Your task to perform on an android device: Add "apple airpods" to the cart on ebay.com, then select checkout. Image 0: 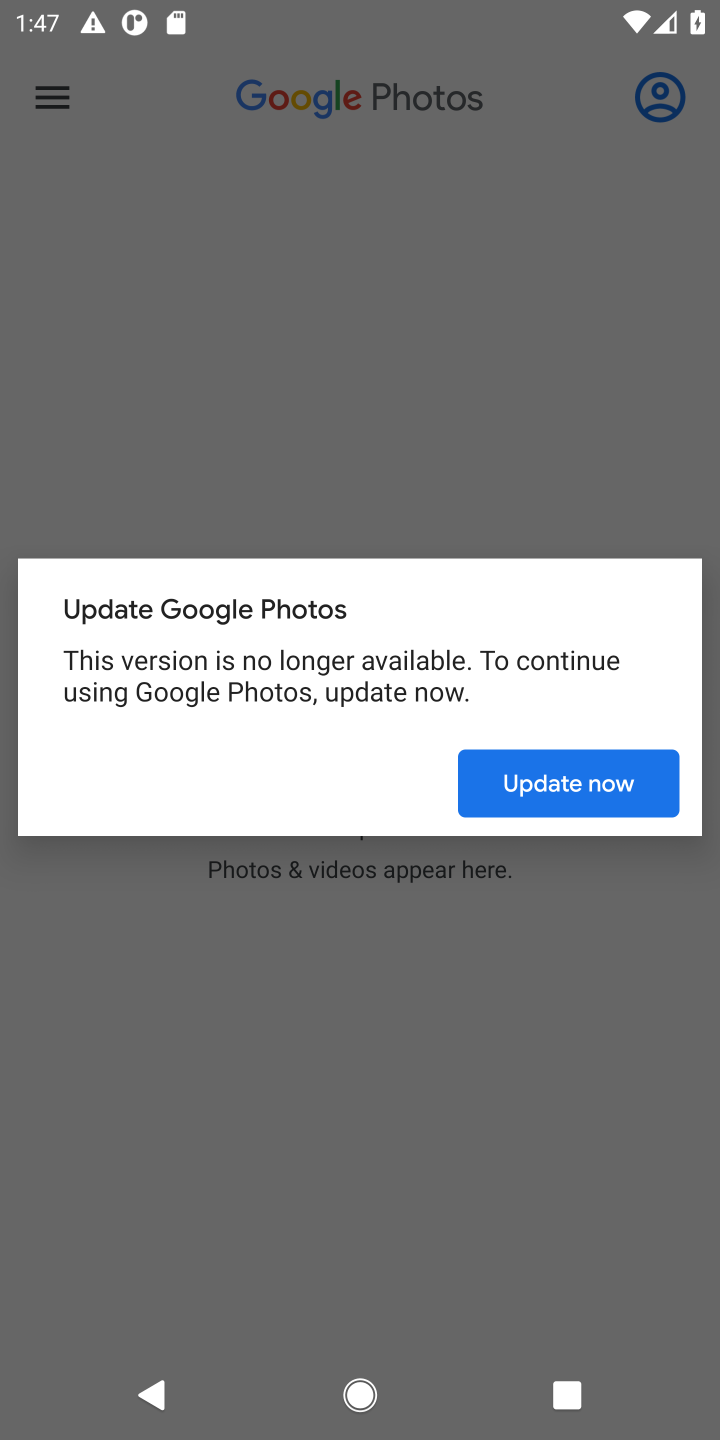
Step 0: press home button
Your task to perform on an android device: Add "apple airpods" to the cart on ebay.com, then select checkout. Image 1: 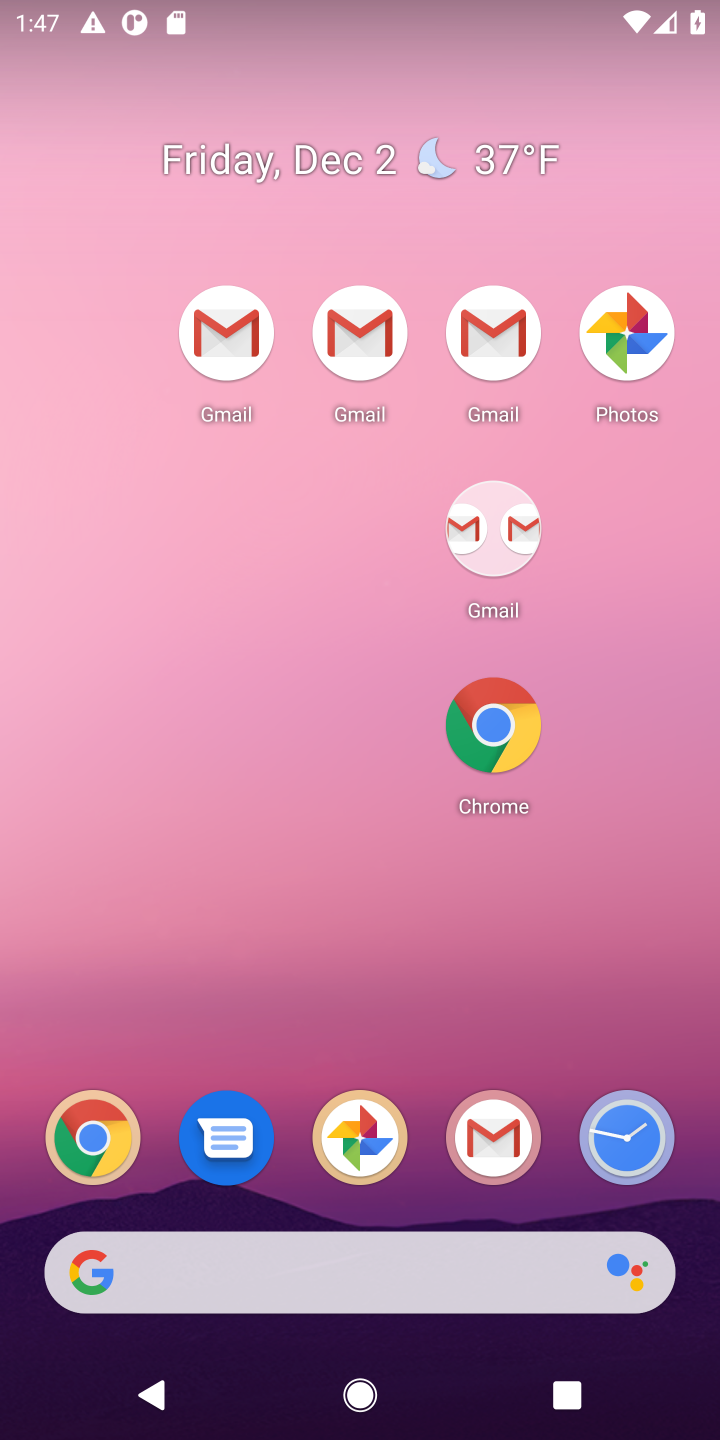
Step 1: drag from (410, 1120) to (364, 69)
Your task to perform on an android device: Add "apple airpods" to the cart on ebay.com, then select checkout. Image 2: 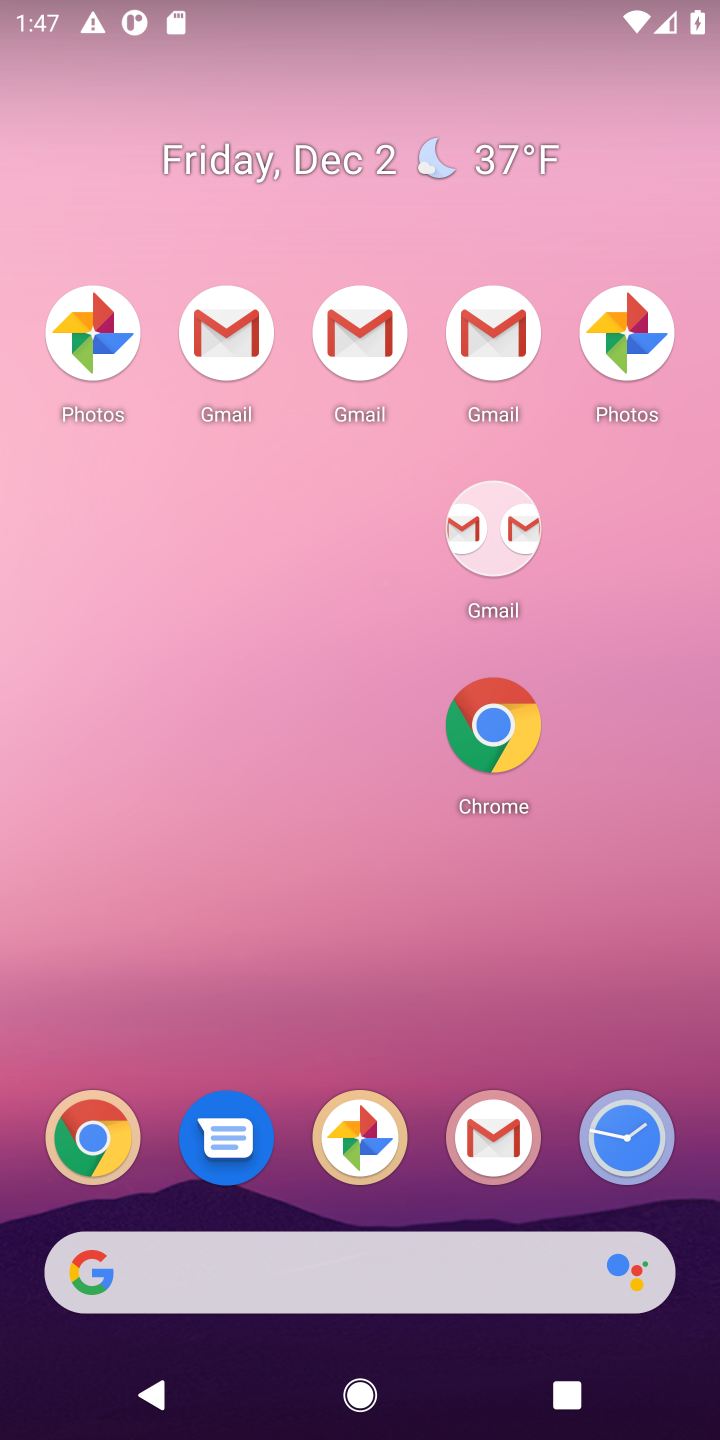
Step 2: drag from (347, 964) to (457, 95)
Your task to perform on an android device: Add "apple airpods" to the cart on ebay.com, then select checkout. Image 3: 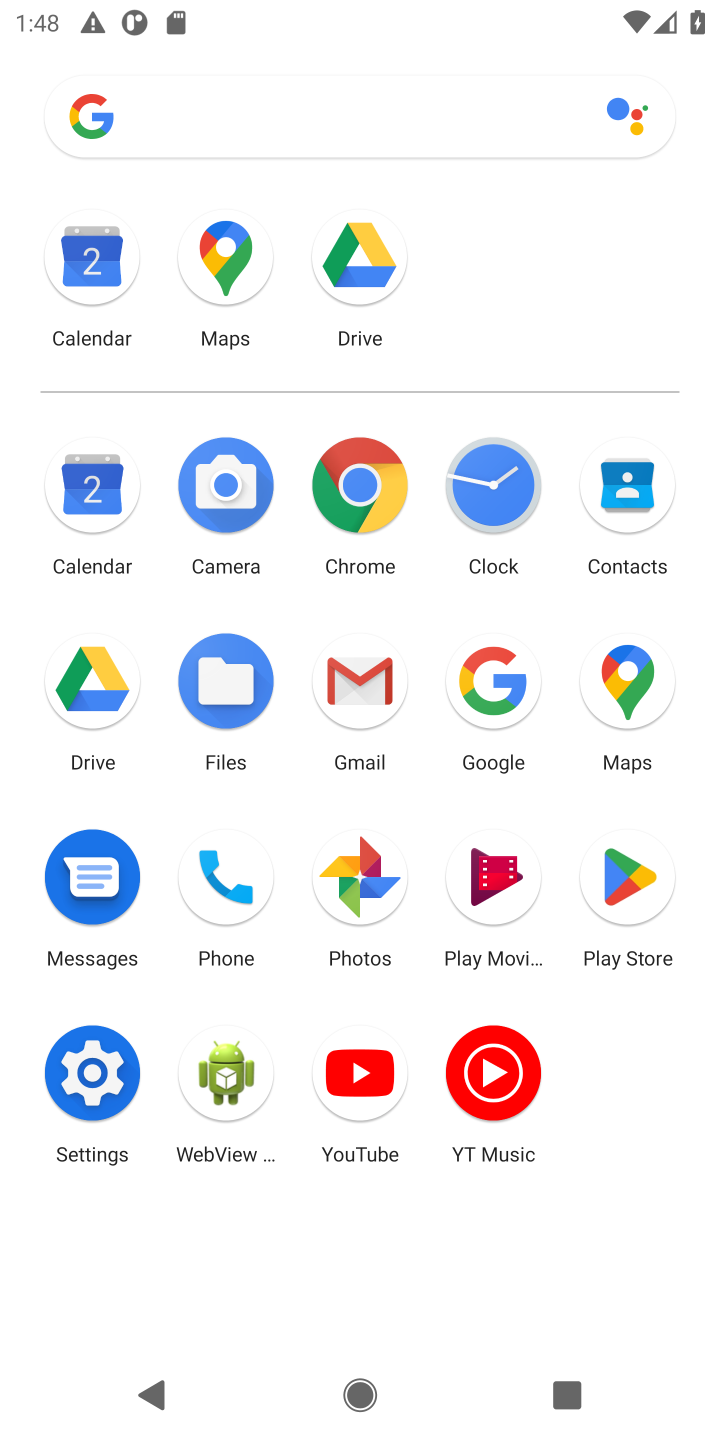
Step 3: click (505, 713)
Your task to perform on an android device: Add "apple airpods" to the cart on ebay.com, then select checkout. Image 4: 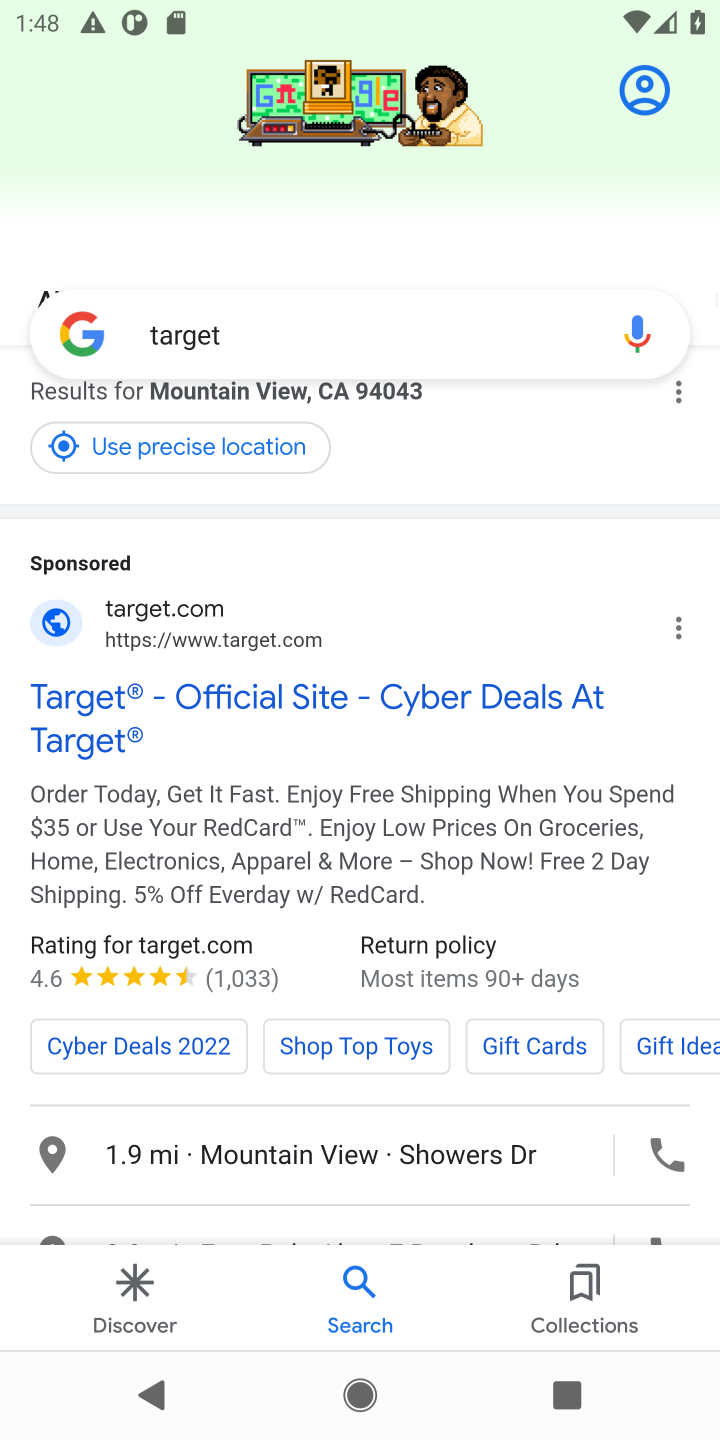
Step 4: click (513, 347)
Your task to perform on an android device: Add "apple airpods" to the cart on ebay.com, then select checkout. Image 5: 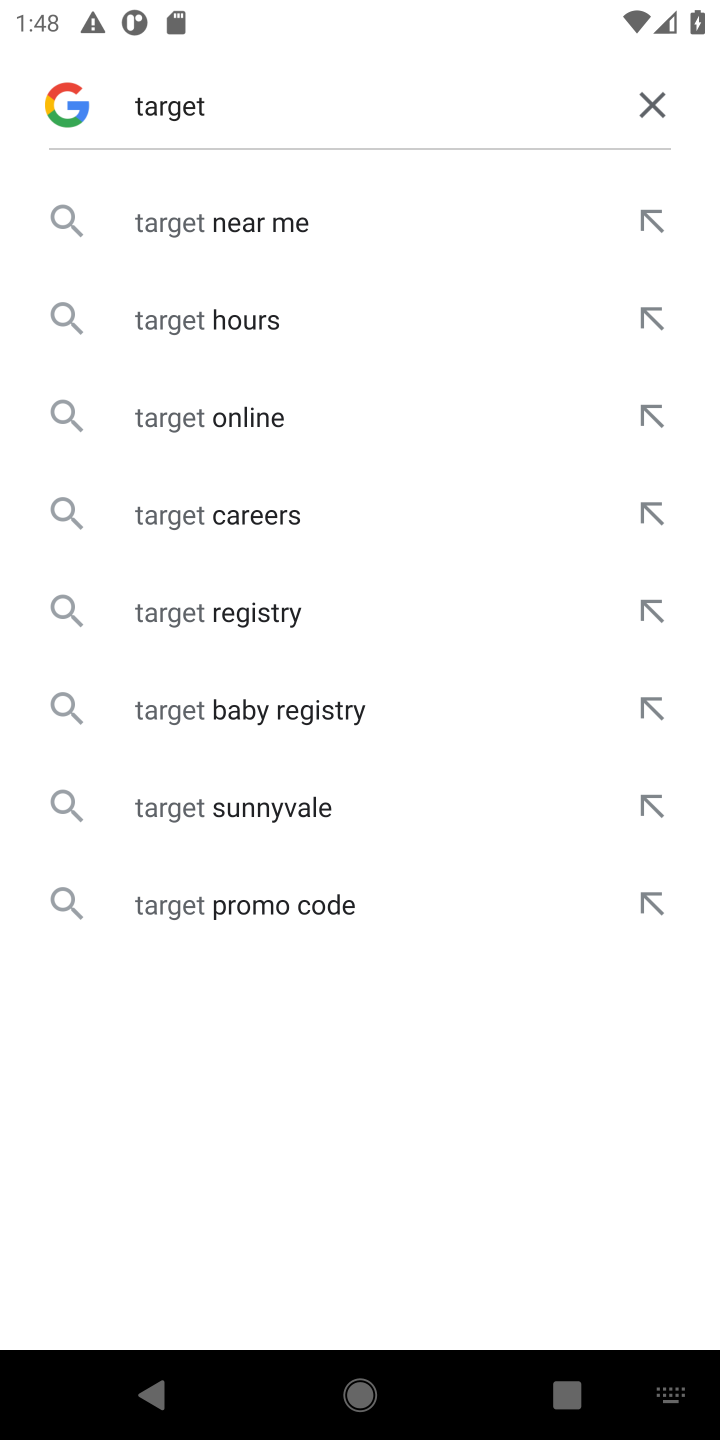
Step 5: click (641, 99)
Your task to perform on an android device: Add "apple airpods" to the cart on ebay.com, then select checkout. Image 6: 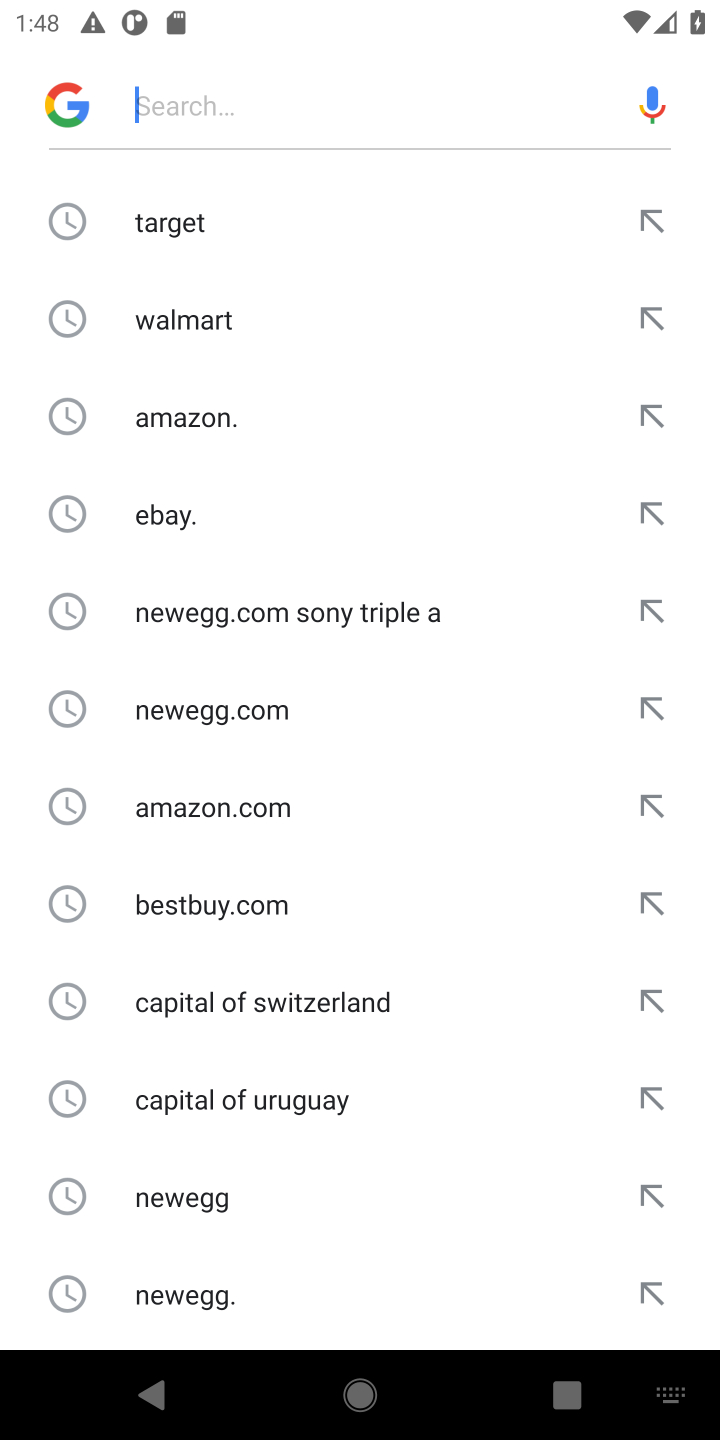
Step 6: click (313, 523)
Your task to perform on an android device: Add "apple airpods" to the cart on ebay.com, then select checkout. Image 7: 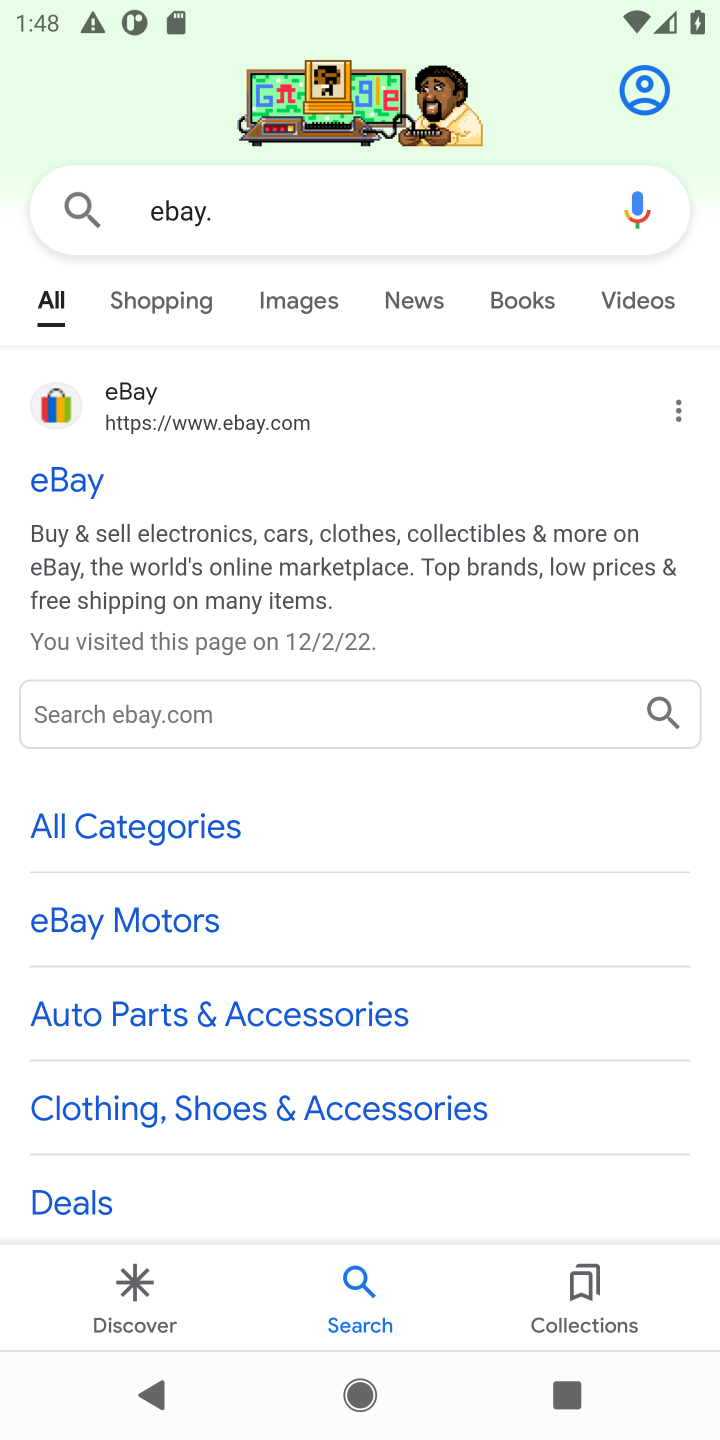
Step 7: click (42, 481)
Your task to perform on an android device: Add "apple airpods" to the cart on ebay.com, then select checkout. Image 8: 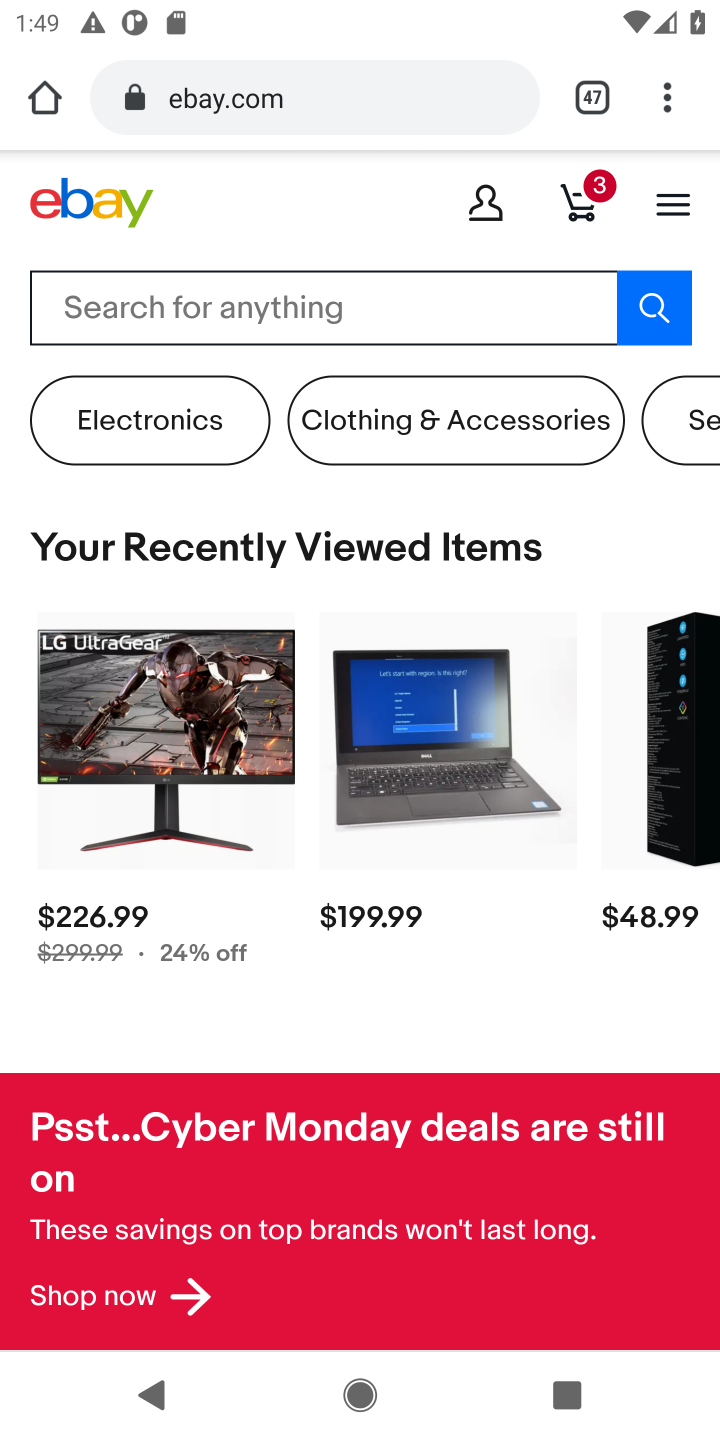
Step 8: click (384, 299)
Your task to perform on an android device: Add "apple airpods" to the cart on ebay.com, then select checkout. Image 9: 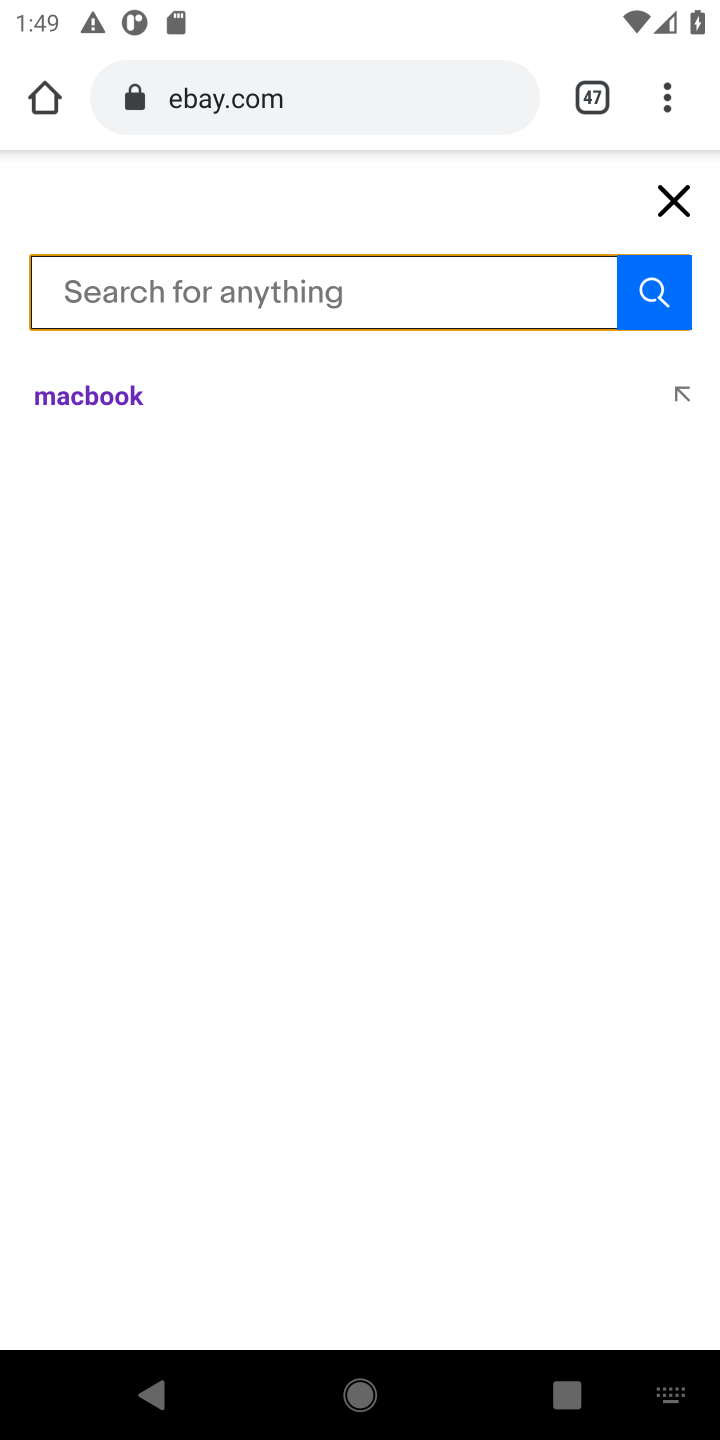
Step 9: type "apple airpods"
Your task to perform on an android device: Add "apple airpods" to the cart on ebay.com, then select checkout. Image 10: 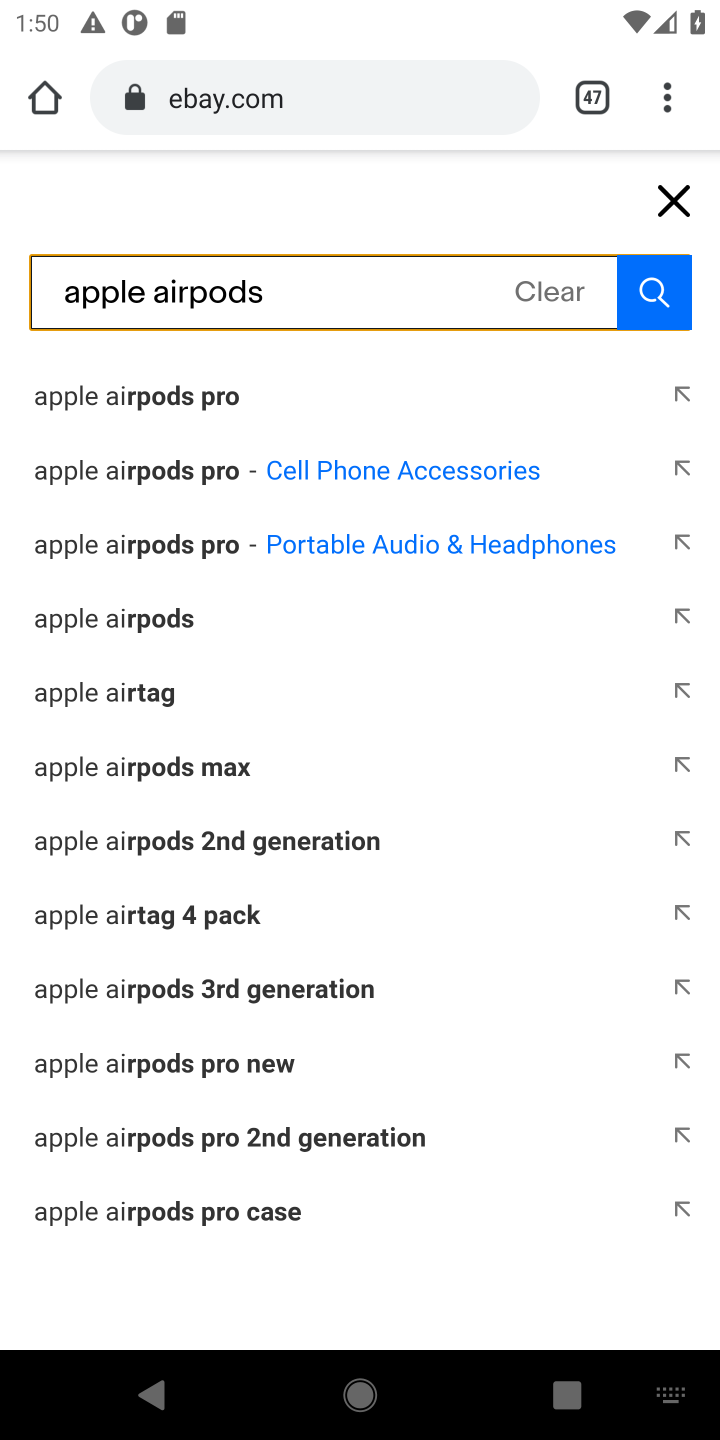
Step 10: click (180, 617)
Your task to perform on an android device: Add "apple airpods" to the cart on ebay.com, then select checkout. Image 11: 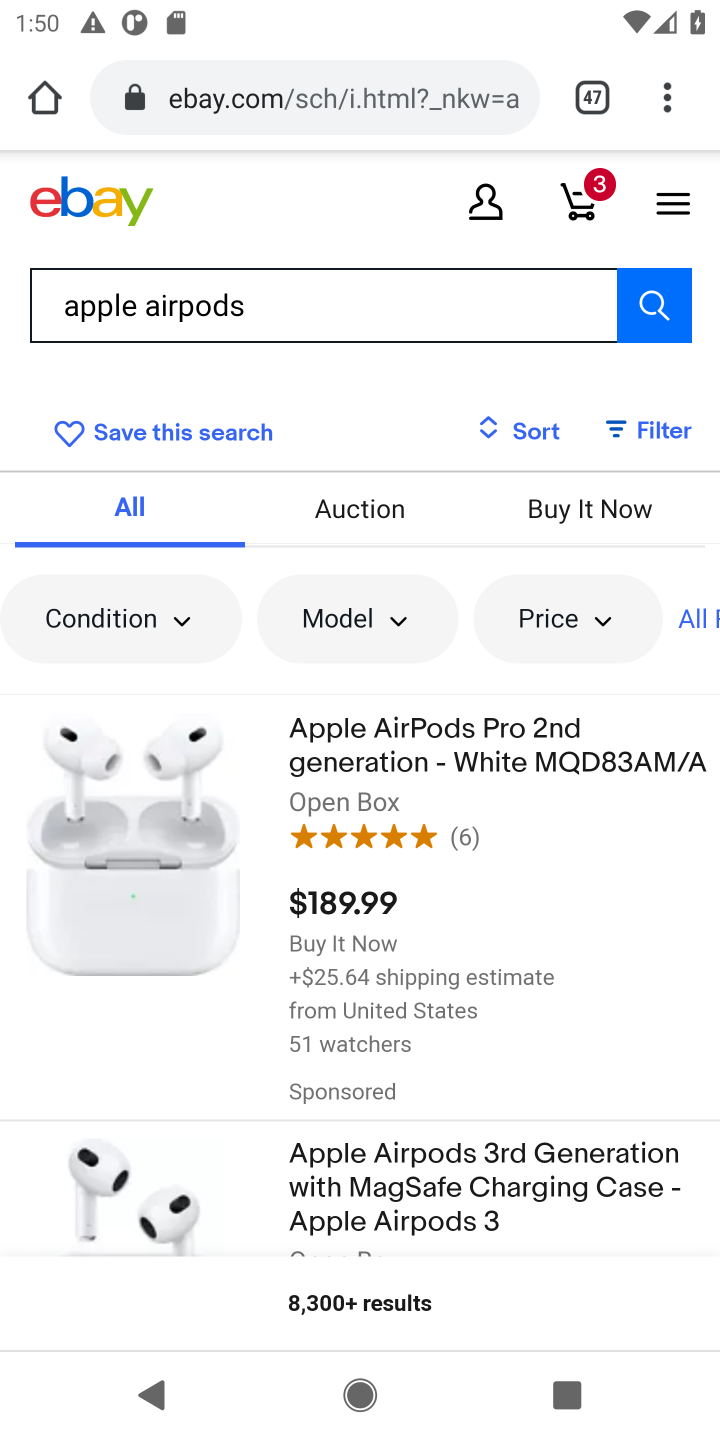
Step 11: click (228, 829)
Your task to perform on an android device: Add "apple airpods" to the cart on ebay.com, then select checkout. Image 12: 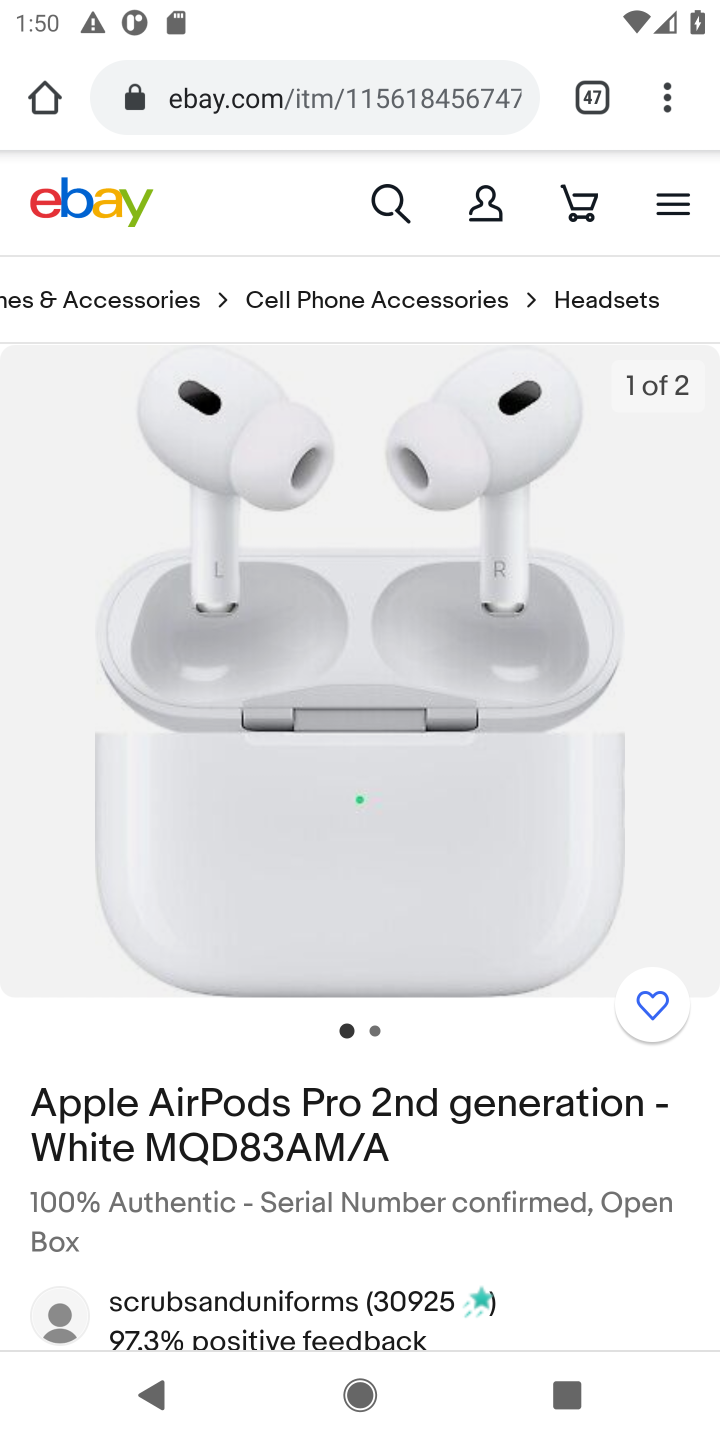
Step 12: drag from (392, 1088) to (409, 615)
Your task to perform on an android device: Add "apple airpods" to the cart on ebay.com, then select checkout. Image 13: 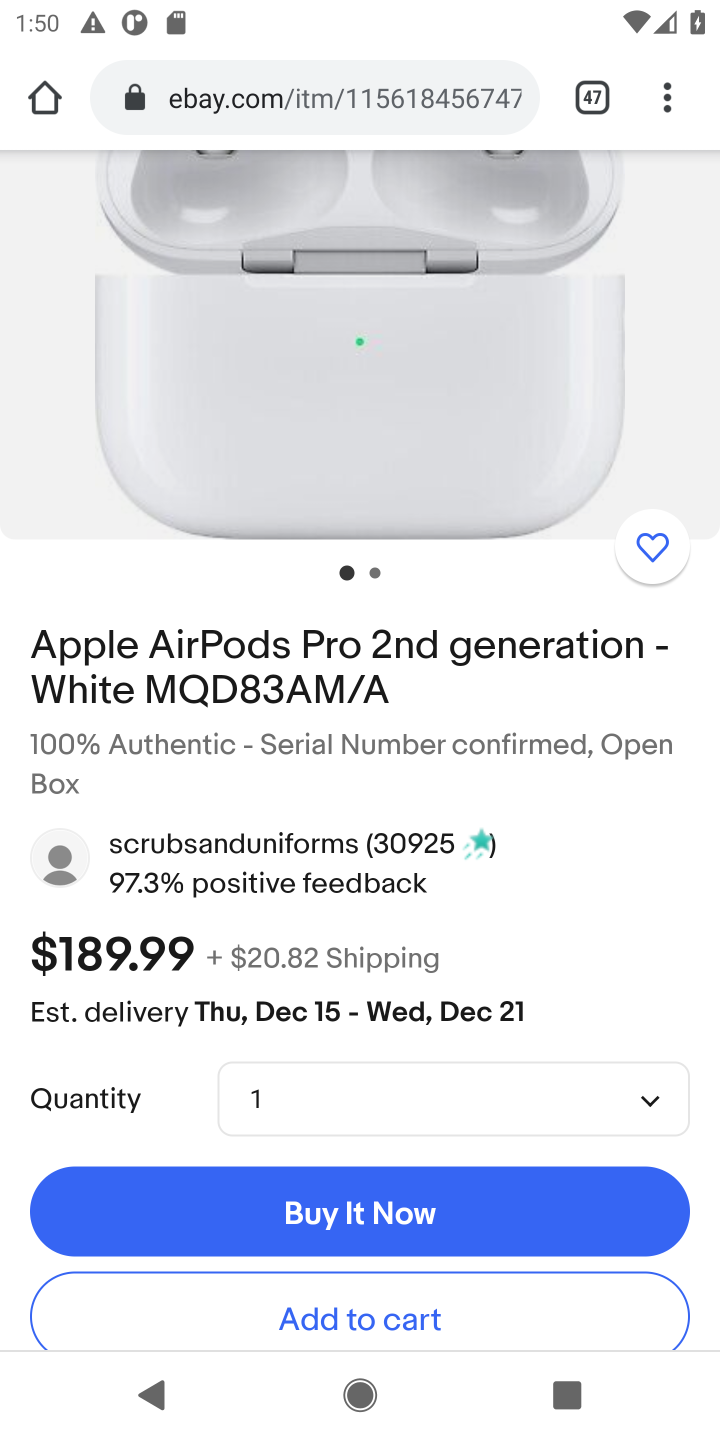
Step 13: click (500, 1300)
Your task to perform on an android device: Add "apple airpods" to the cart on ebay.com, then select checkout. Image 14: 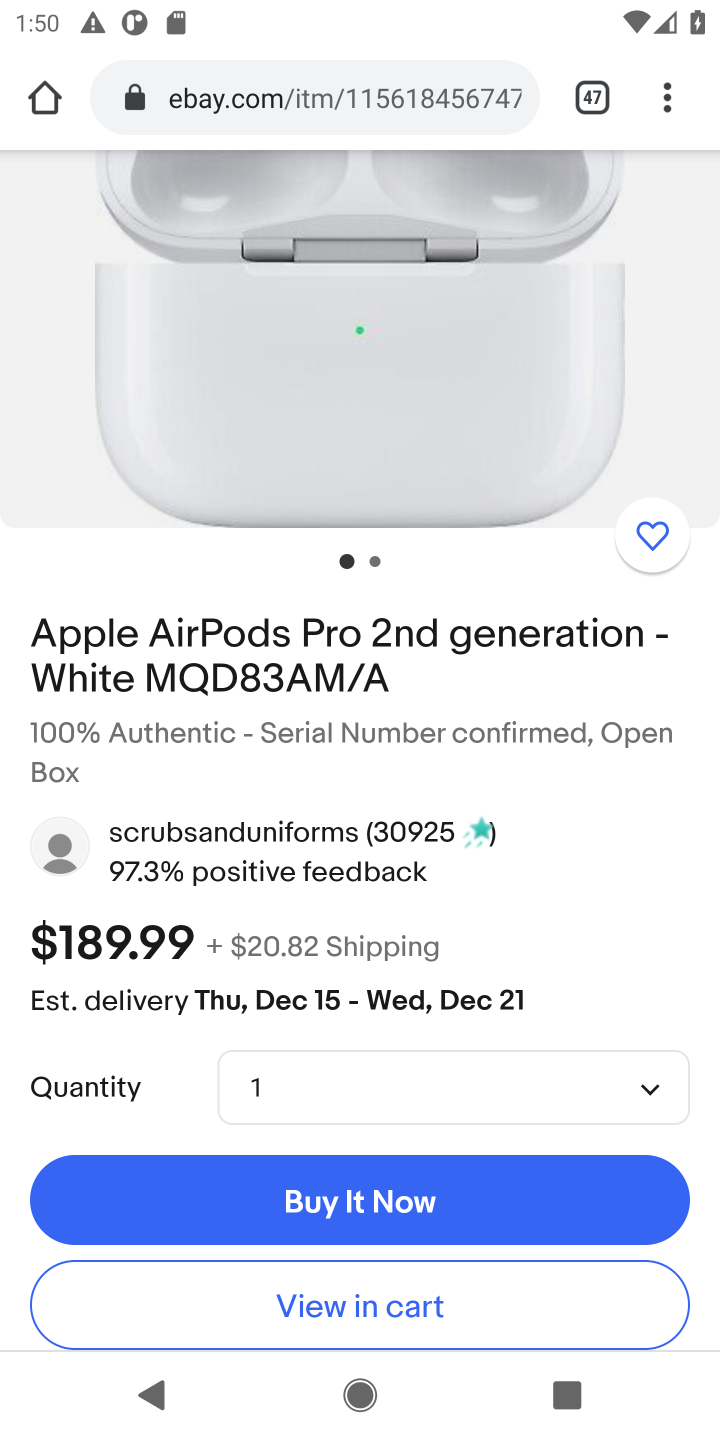
Step 14: drag from (577, 411) to (587, 594)
Your task to perform on an android device: Add "apple airpods" to the cart on ebay.com, then select checkout. Image 15: 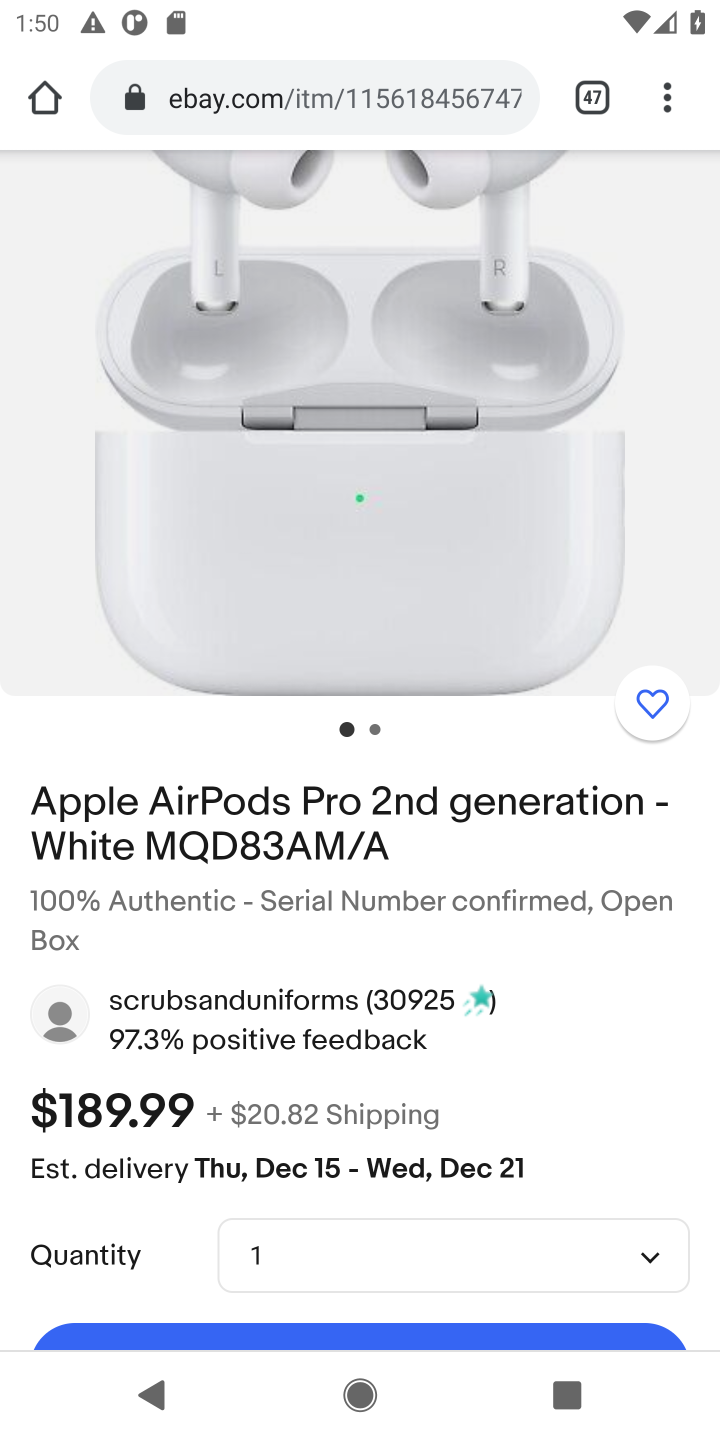
Step 15: drag from (567, 324) to (567, 816)
Your task to perform on an android device: Add "apple airpods" to the cart on ebay.com, then select checkout. Image 16: 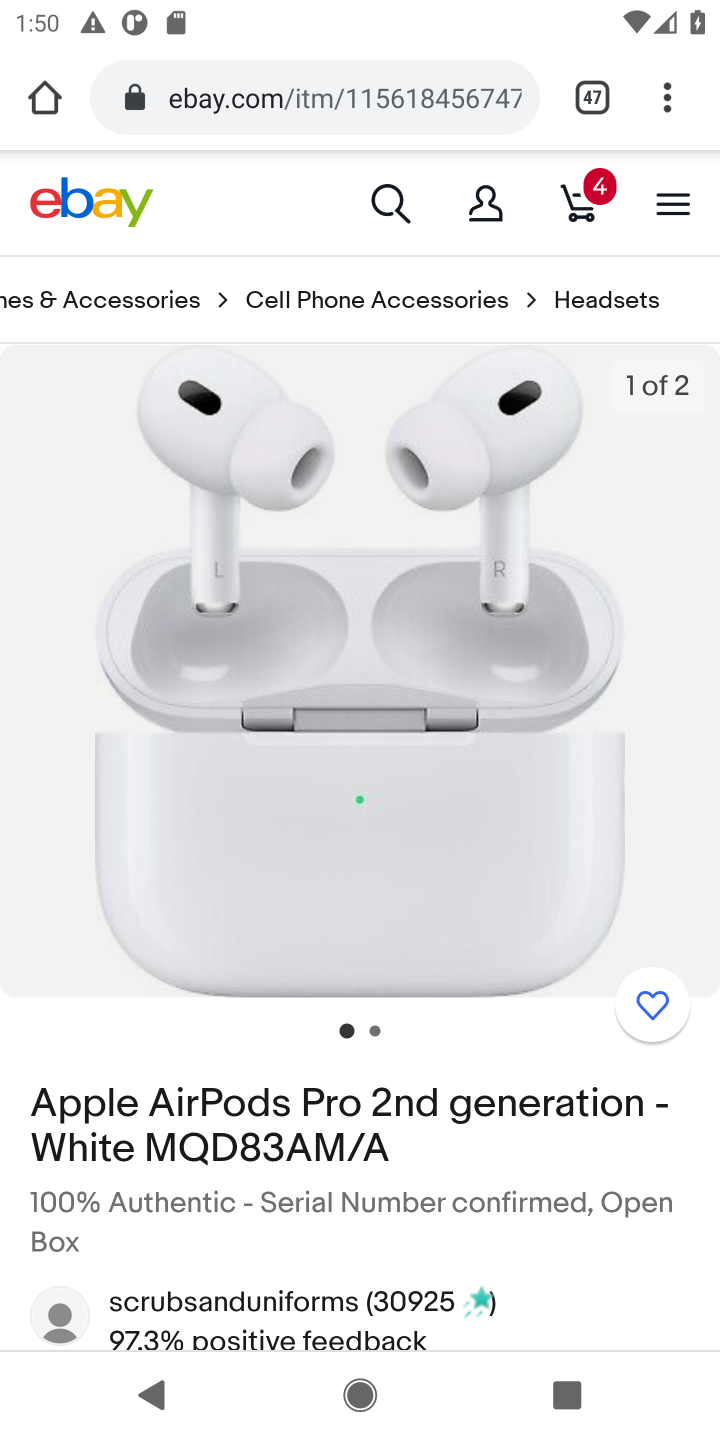
Step 16: click (581, 186)
Your task to perform on an android device: Add "apple airpods" to the cart on ebay.com, then select checkout. Image 17: 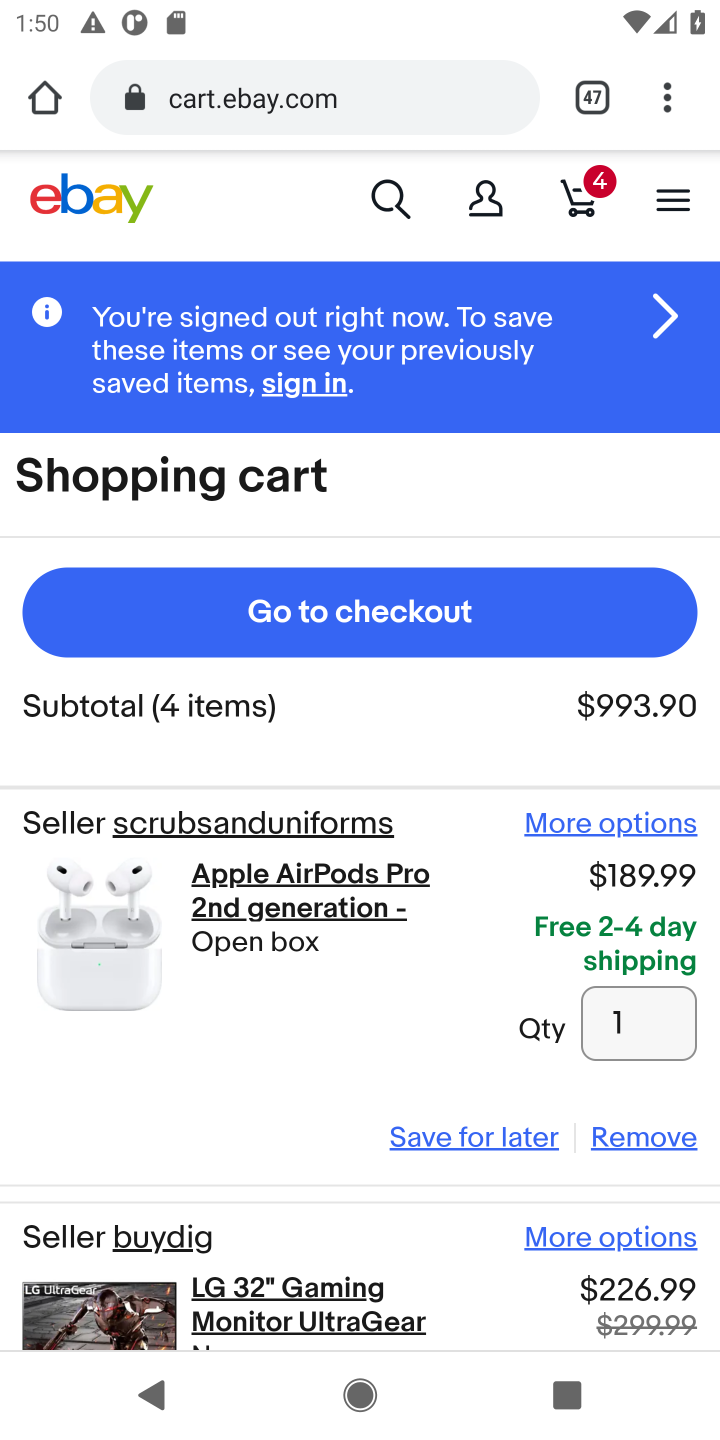
Step 17: click (481, 618)
Your task to perform on an android device: Add "apple airpods" to the cart on ebay.com, then select checkout. Image 18: 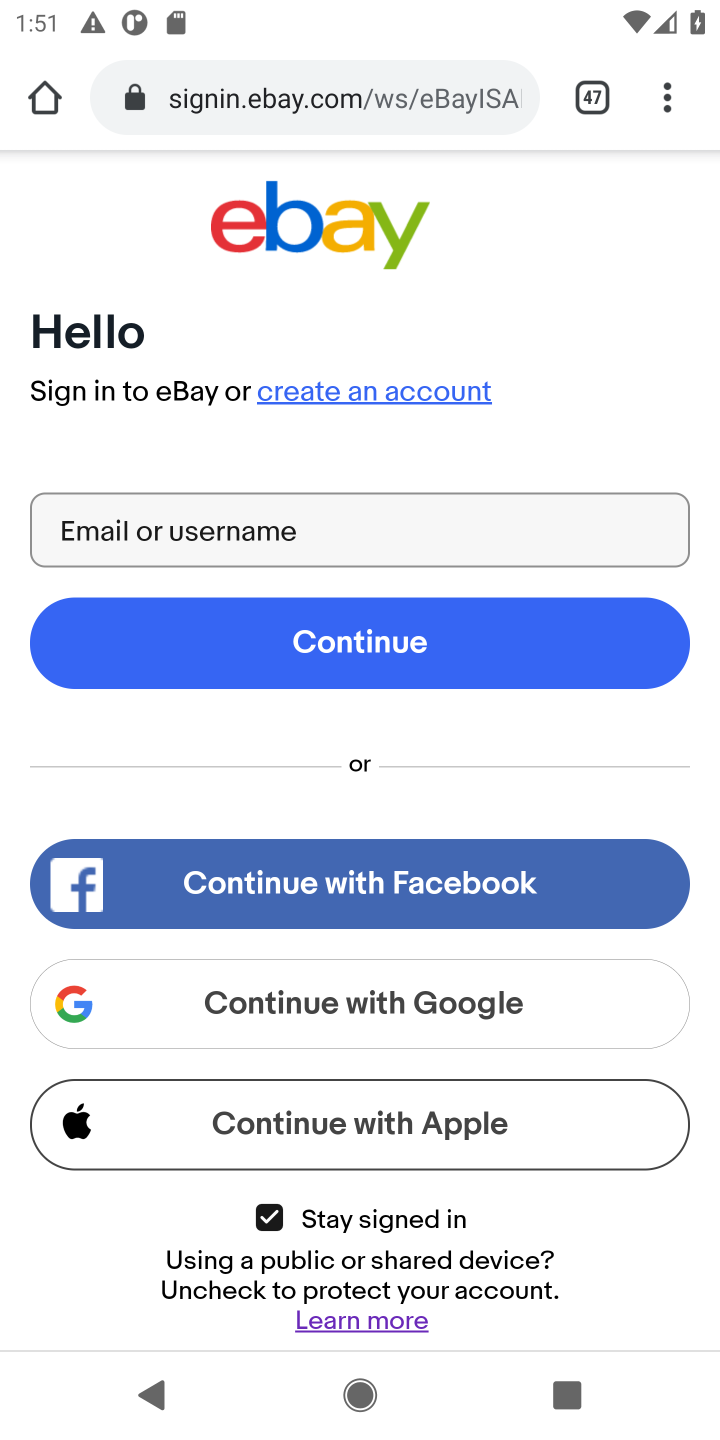
Step 18: task complete